Your task to perform on an android device: Go to settings Image 0: 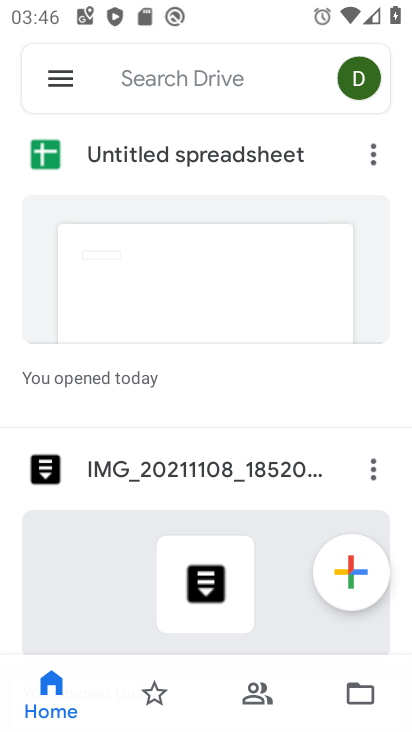
Step 0: press home button
Your task to perform on an android device: Go to settings Image 1: 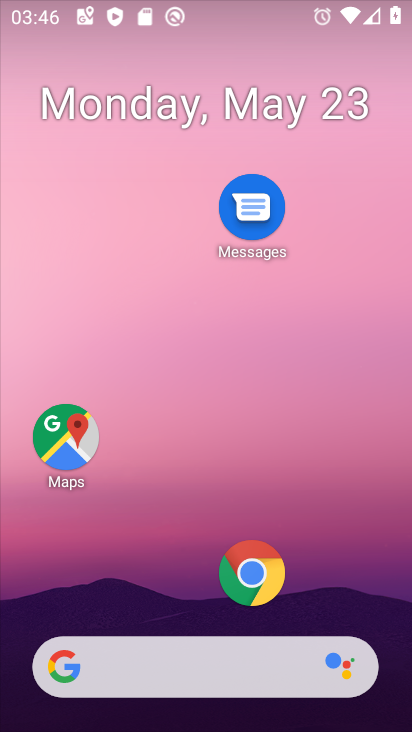
Step 1: drag from (261, 644) to (304, 6)
Your task to perform on an android device: Go to settings Image 2: 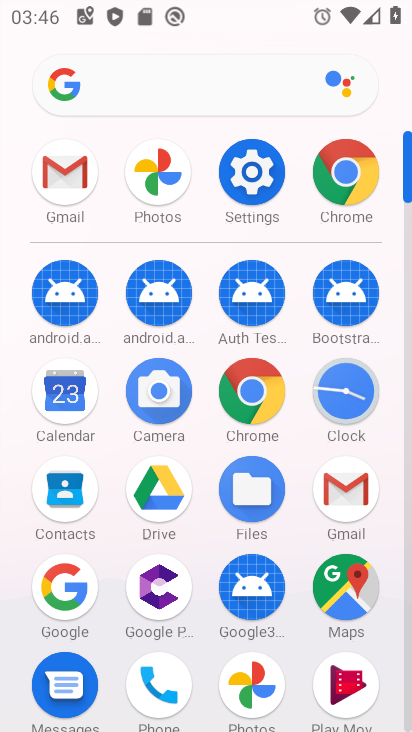
Step 2: click (265, 161)
Your task to perform on an android device: Go to settings Image 3: 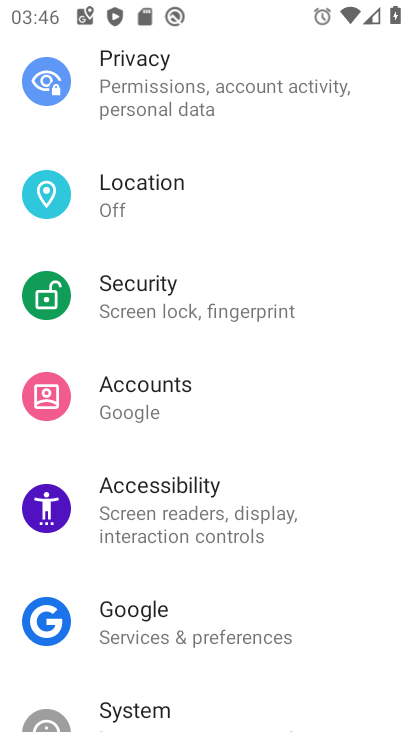
Step 3: task complete